Your task to perform on an android device: turn off location history Image 0: 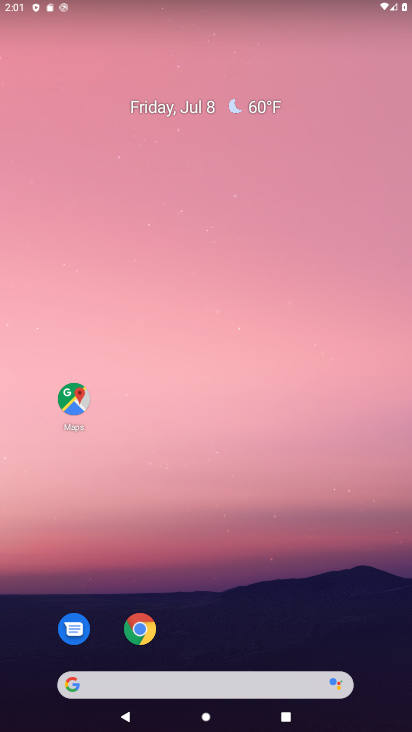
Step 0: drag from (206, 616) to (206, 215)
Your task to perform on an android device: turn off location history Image 1: 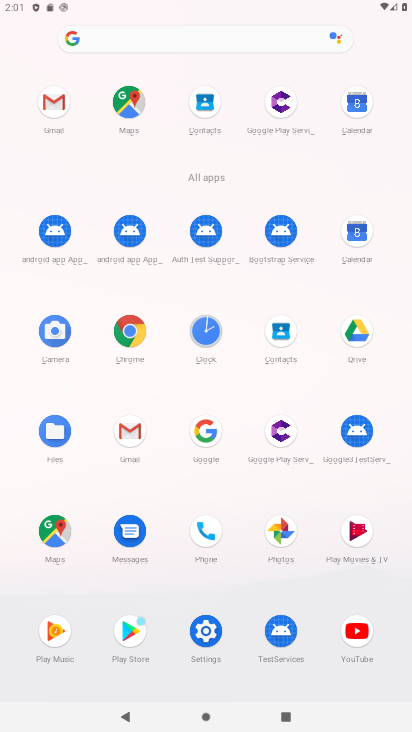
Step 1: click (215, 644)
Your task to perform on an android device: turn off location history Image 2: 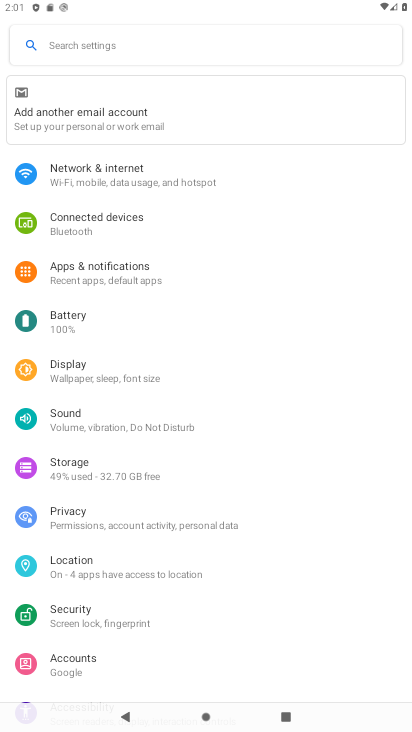
Step 2: click (95, 577)
Your task to perform on an android device: turn off location history Image 3: 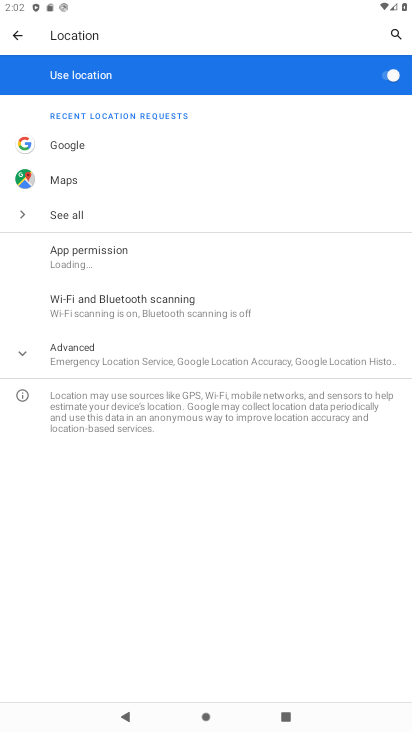
Step 3: click (119, 368)
Your task to perform on an android device: turn off location history Image 4: 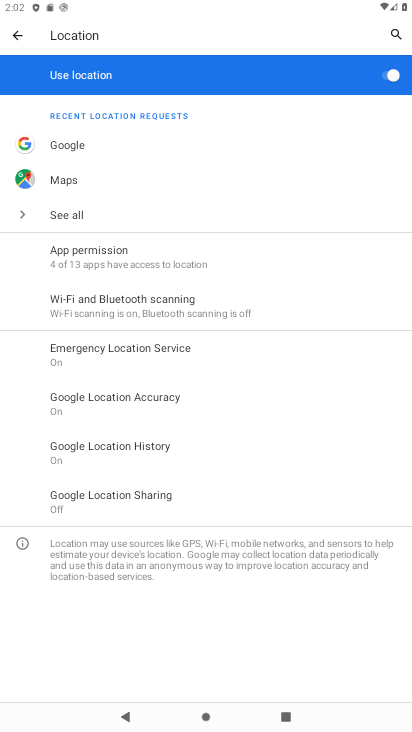
Step 4: click (177, 451)
Your task to perform on an android device: turn off location history Image 5: 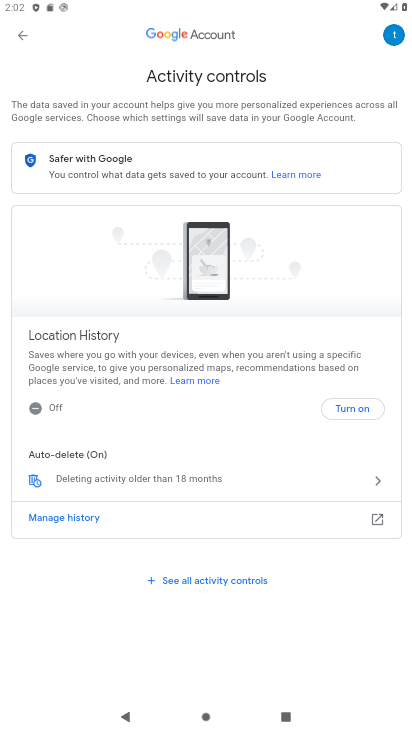
Step 5: task complete